Your task to perform on an android device: Go to ESPN.com Image 0: 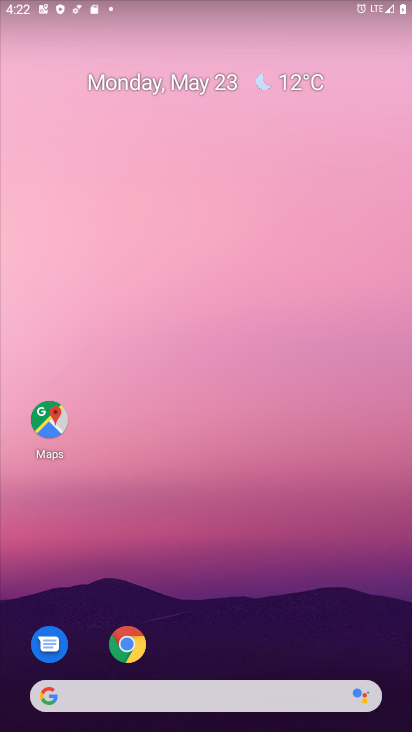
Step 0: drag from (265, 630) to (249, 260)
Your task to perform on an android device: Go to ESPN.com Image 1: 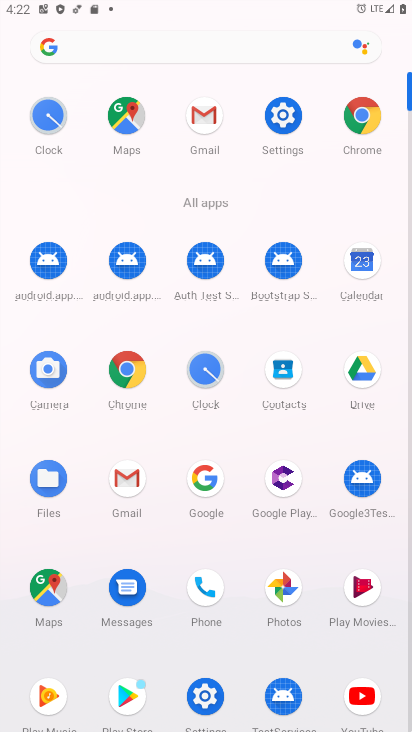
Step 1: click (366, 130)
Your task to perform on an android device: Go to ESPN.com Image 2: 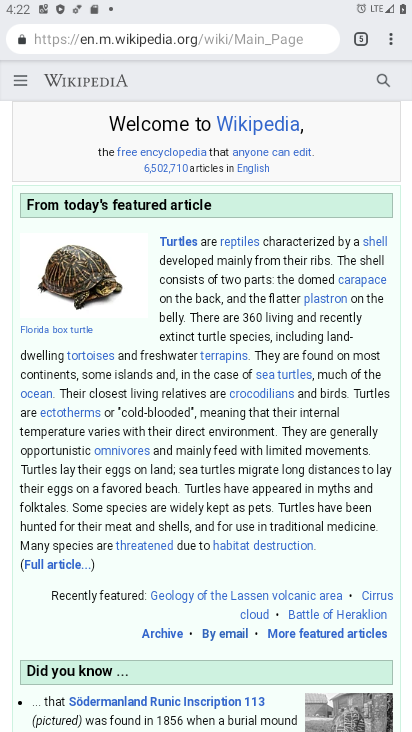
Step 2: click (183, 44)
Your task to perform on an android device: Go to ESPN.com Image 3: 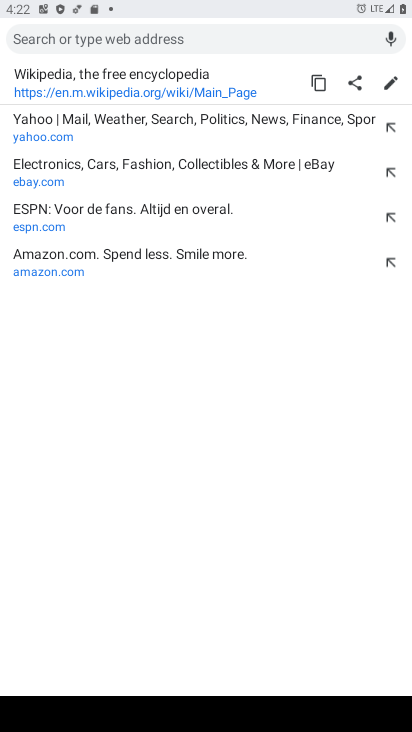
Step 3: type "espn.com"
Your task to perform on an android device: Go to ESPN.com Image 4: 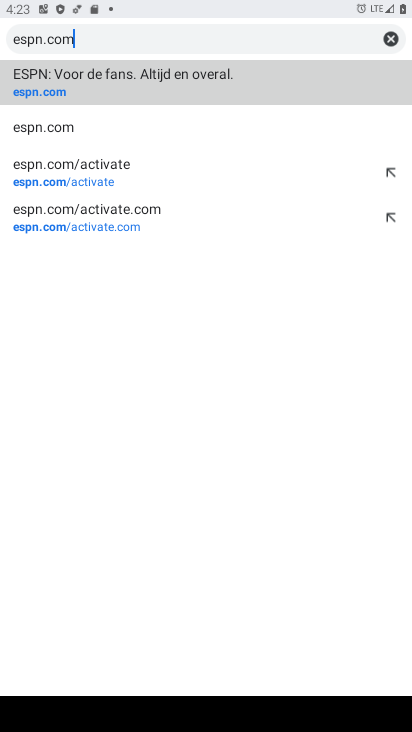
Step 4: click (20, 85)
Your task to perform on an android device: Go to ESPN.com Image 5: 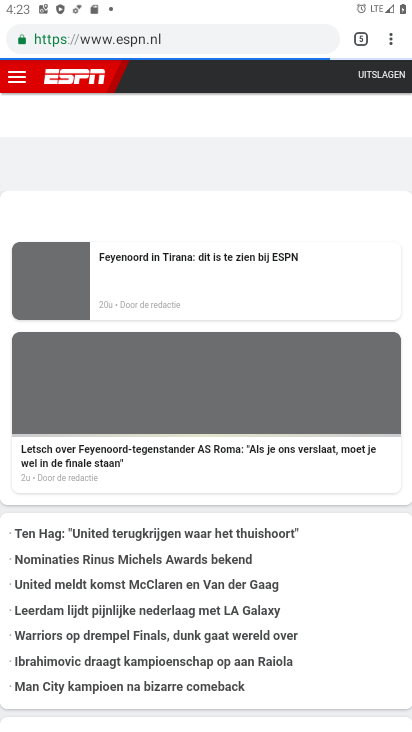
Step 5: task complete